Your task to perform on an android device: add a contact in the contacts app Image 0: 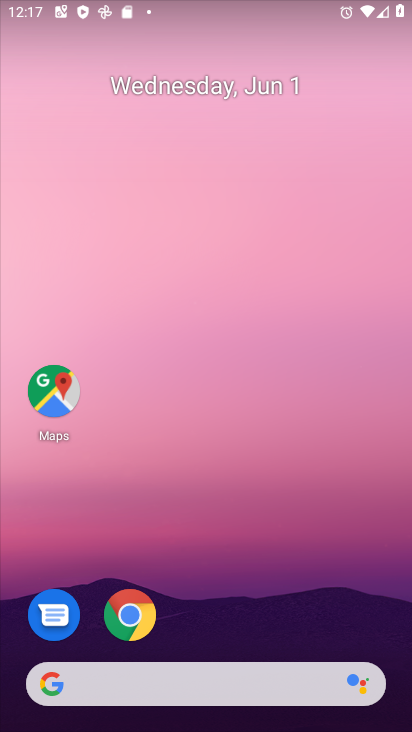
Step 0: drag from (351, 520) to (44, 4)
Your task to perform on an android device: add a contact in the contacts app Image 1: 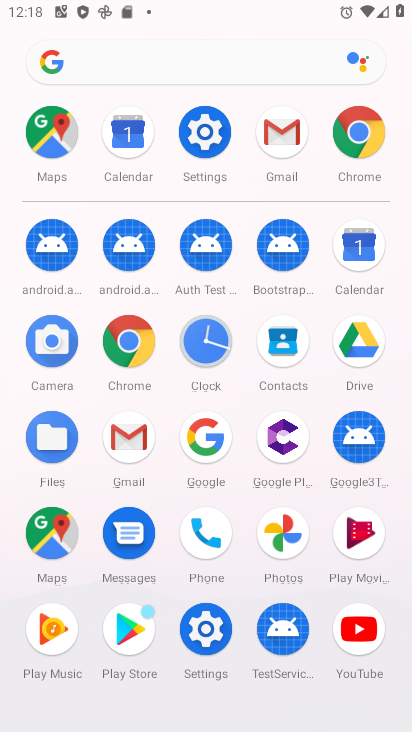
Step 1: click (216, 549)
Your task to perform on an android device: add a contact in the contacts app Image 2: 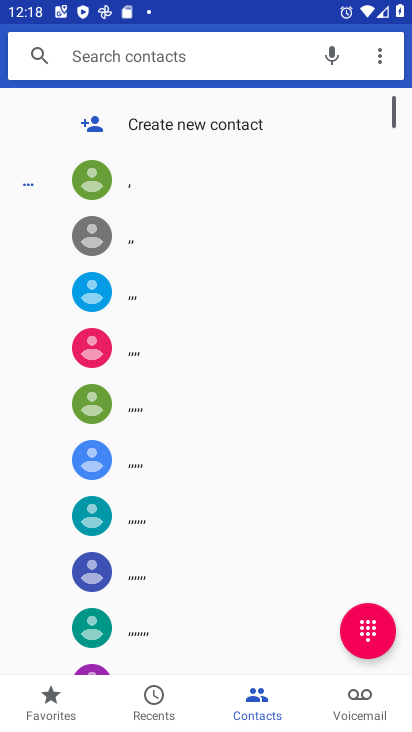
Step 2: click (213, 130)
Your task to perform on an android device: add a contact in the contacts app Image 3: 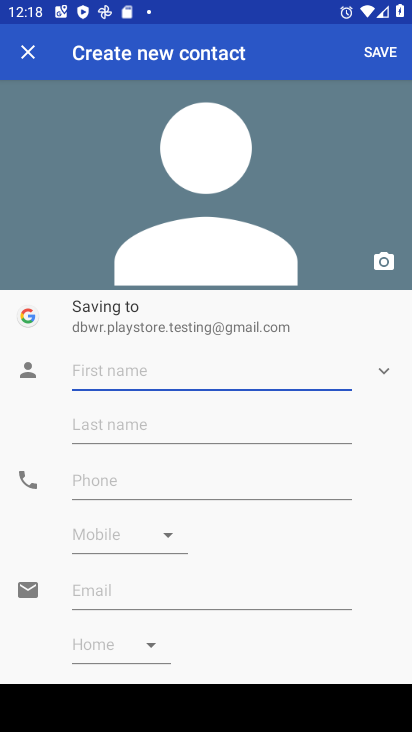
Step 3: type "tryyr"
Your task to perform on an android device: add a contact in the contacts app Image 4: 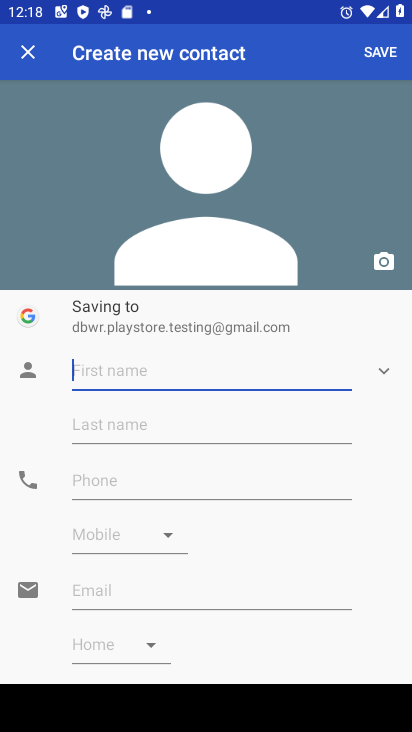
Step 4: click (120, 486)
Your task to perform on an android device: add a contact in the contacts app Image 5: 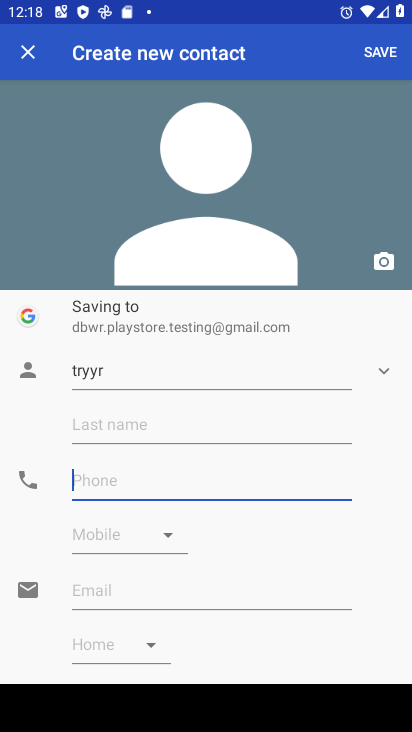
Step 5: type "46464664"
Your task to perform on an android device: add a contact in the contacts app Image 6: 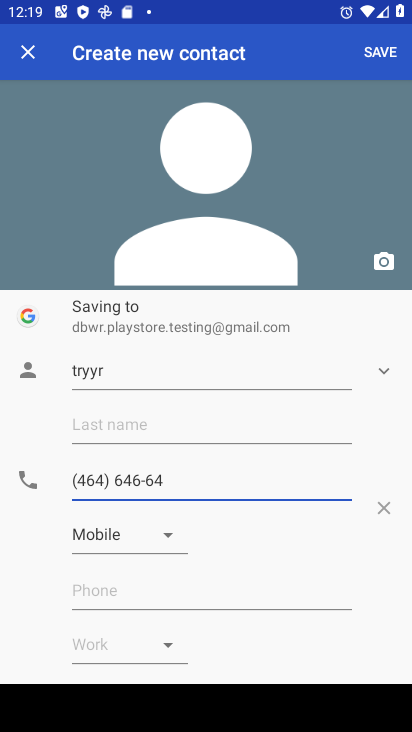
Step 6: click (367, 64)
Your task to perform on an android device: add a contact in the contacts app Image 7: 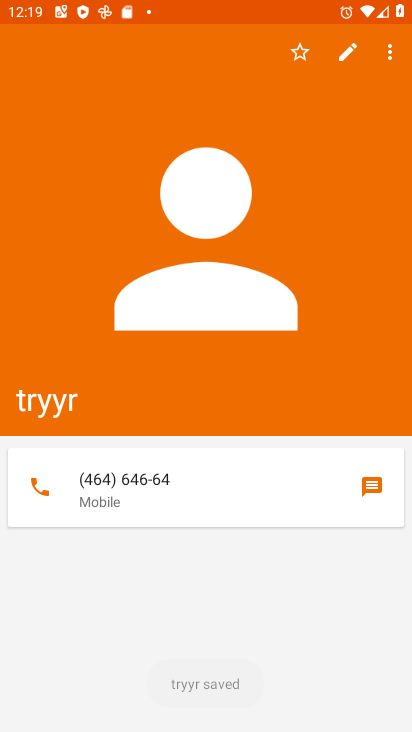
Step 7: task complete